Your task to perform on an android device: Open the phone app and click the voicemail tab. Image 0: 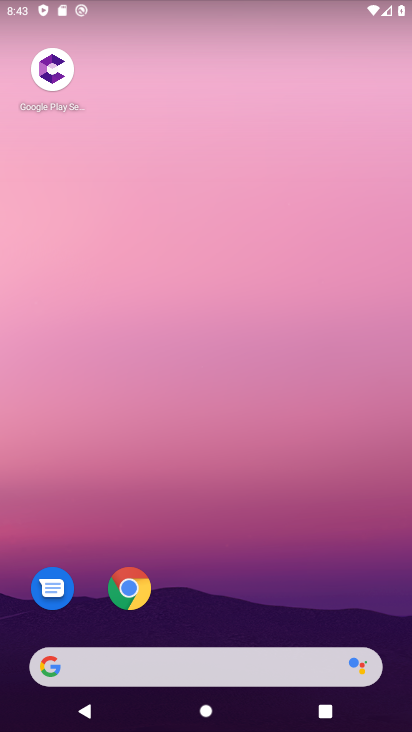
Step 0: drag from (263, 593) to (270, 148)
Your task to perform on an android device: Open the phone app and click the voicemail tab. Image 1: 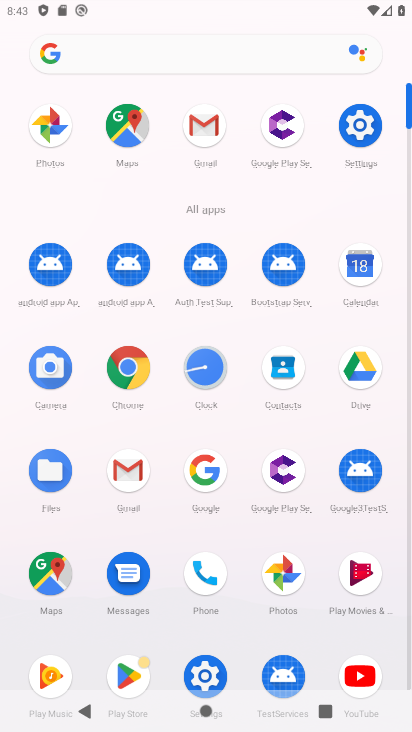
Step 1: click (202, 570)
Your task to perform on an android device: Open the phone app and click the voicemail tab. Image 2: 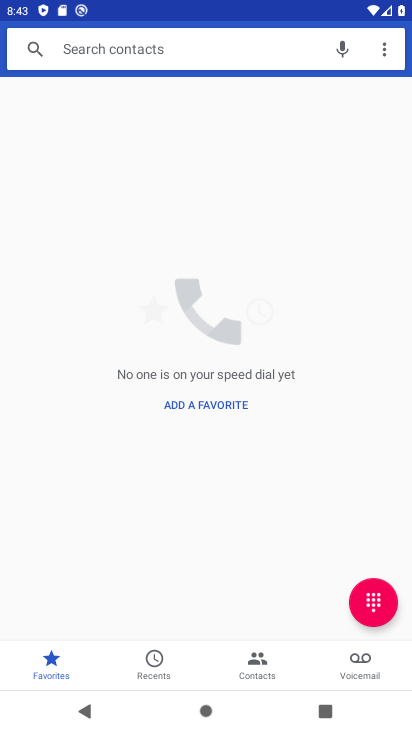
Step 2: click (344, 662)
Your task to perform on an android device: Open the phone app and click the voicemail tab. Image 3: 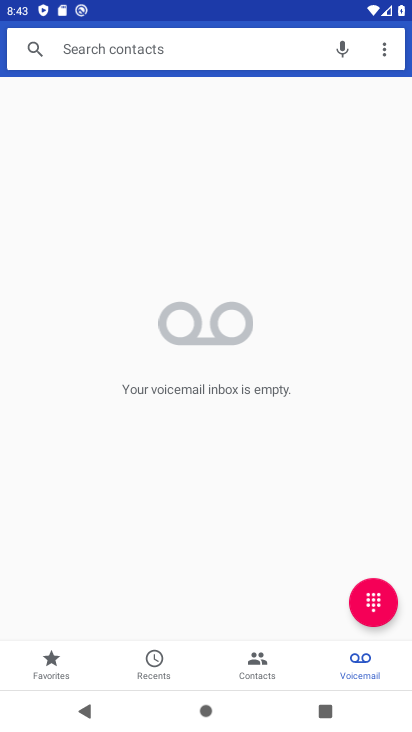
Step 3: task complete